Your task to perform on an android device: check storage Image 0: 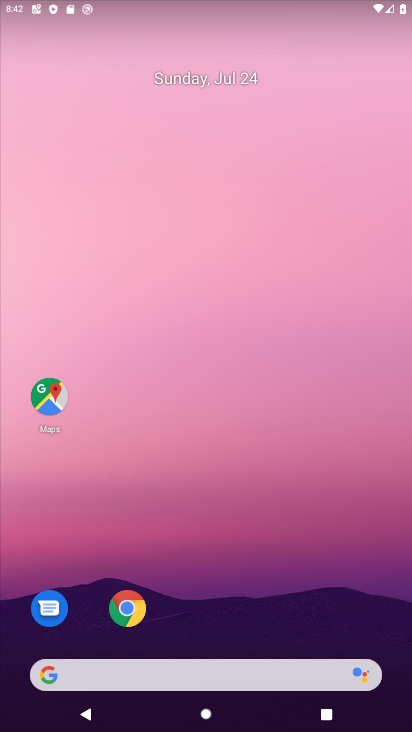
Step 0: drag from (195, 521) to (172, 1)
Your task to perform on an android device: check storage Image 1: 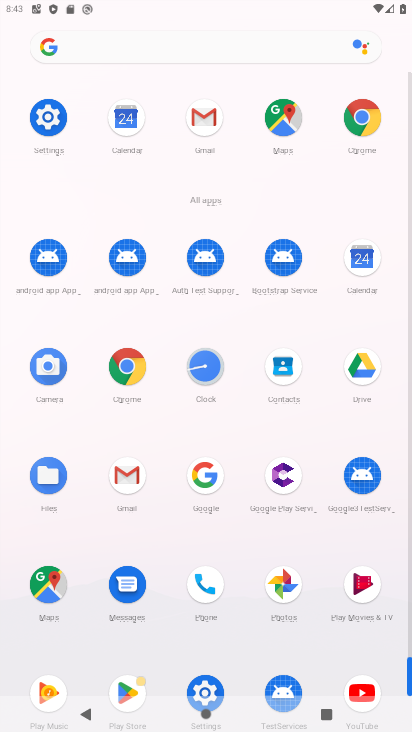
Step 1: drag from (253, 630) to (253, 327)
Your task to perform on an android device: check storage Image 2: 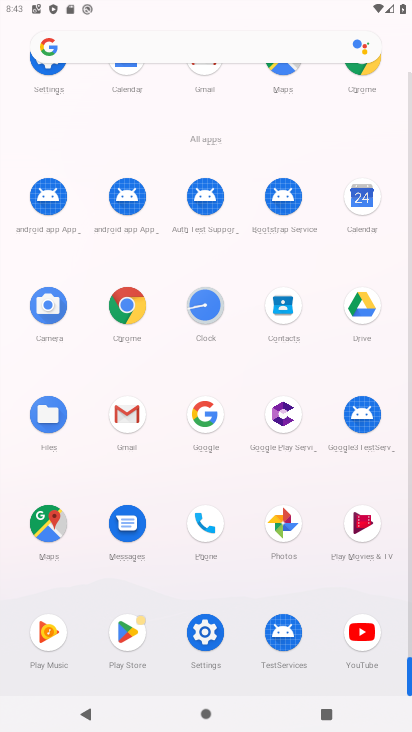
Step 2: click (207, 651)
Your task to perform on an android device: check storage Image 3: 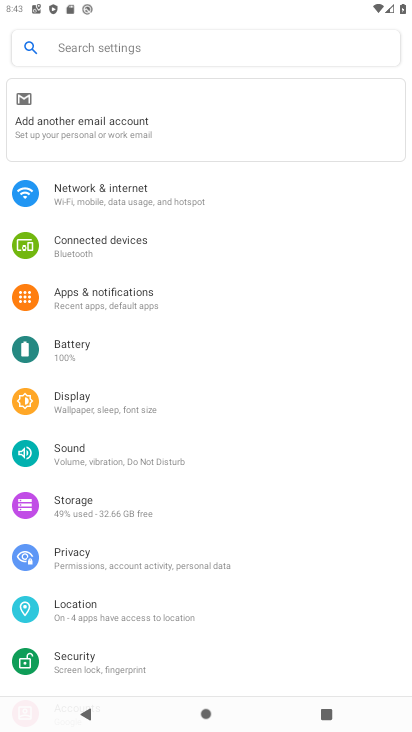
Step 3: click (125, 515)
Your task to perform on an android device: check storage Image 4: 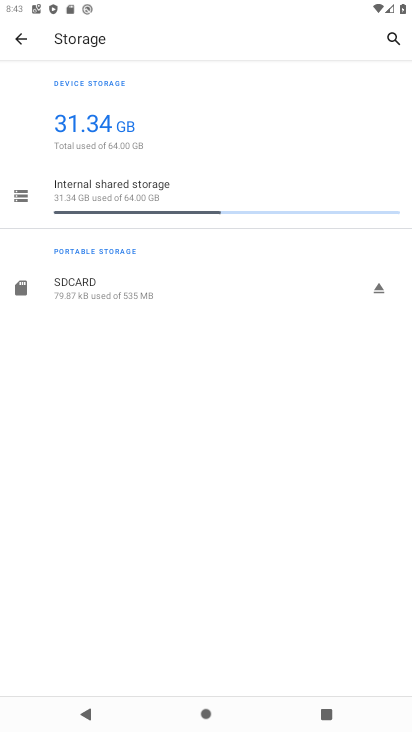
Step 4: click (142, 197)
Your task to perform on an android device: check storage Image 5: 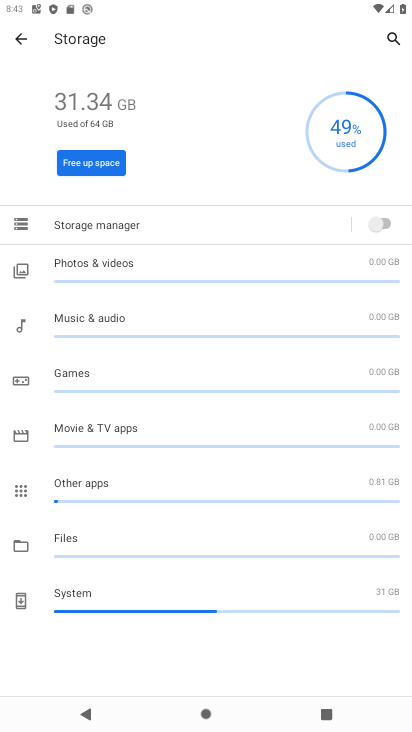
Step 5: task complete